Your task to perform on an android device: open chrome privacy settings Image 0: 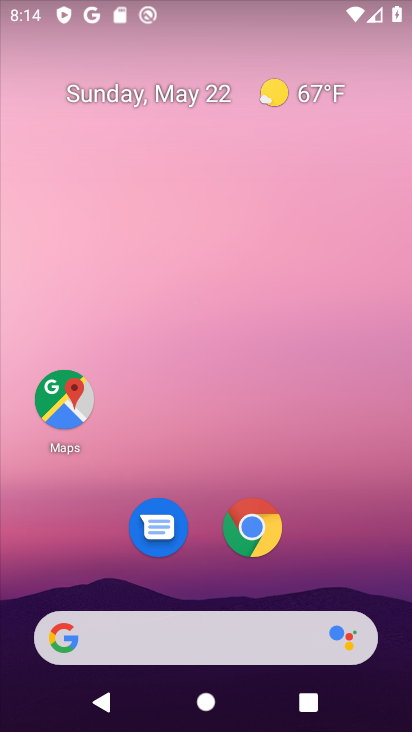
Step 0: click (248, 521)
Your task to perform on an android device: open chrome privacy settings Image 1: 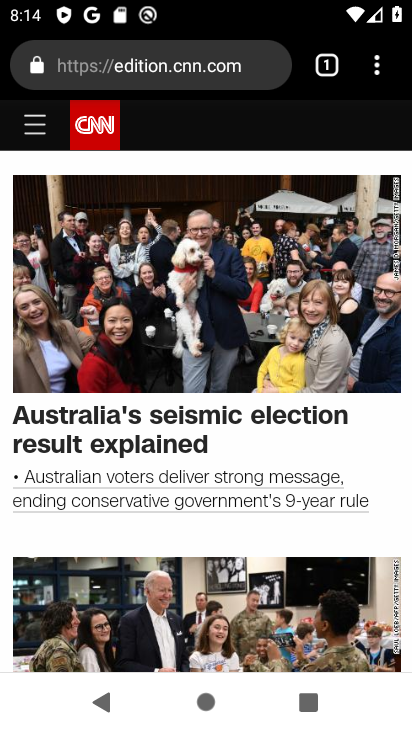
Step 1: click (376, 58)
Your task to perform on an android device: open chrome privacy settings Image 2: 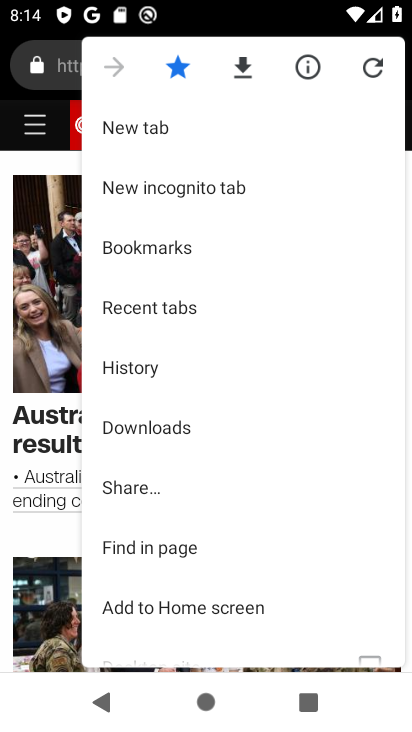
Step 2: drag from (295, 607) to (300, 50)
Your task to perform on an android device: open chrome privacy settings Image 3: 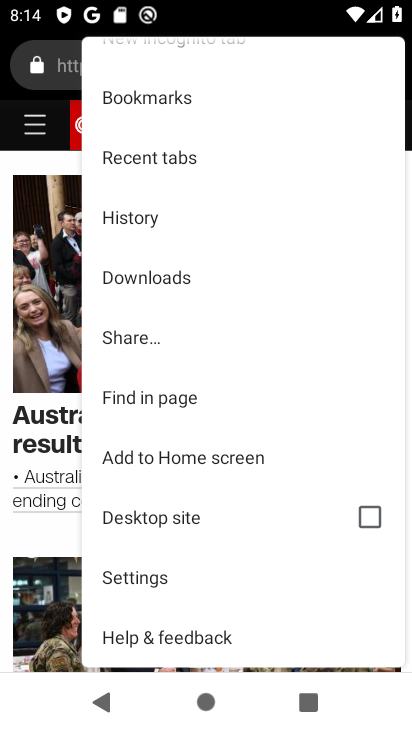
Step 3: click (178, 572)
Your task to perform on an android device: open chrome privacy settings Image 4: 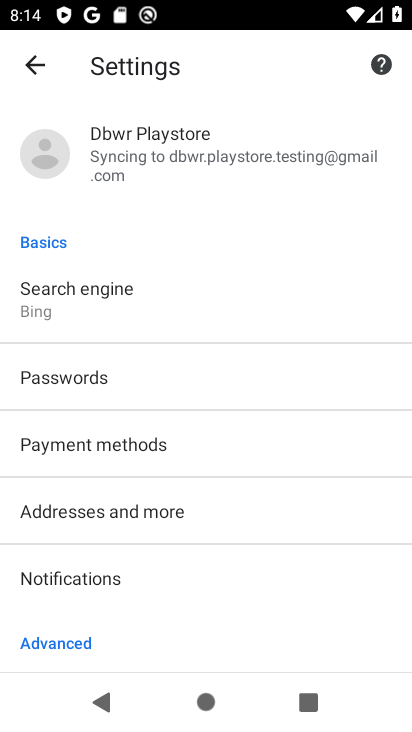
Step 4: drag from (206, 631) to (255, 97)
Your task to perform on an android device: open chrome privacy settings Image 5: 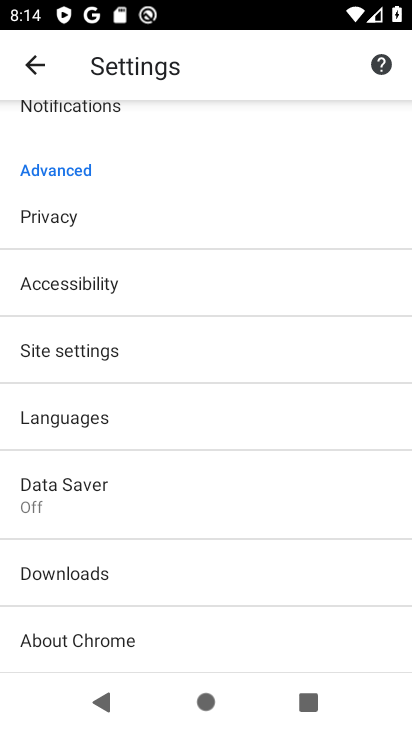
Step 5: click (95, 210)
Your task to perform on an android device: open chrome privacy settings Image 6: 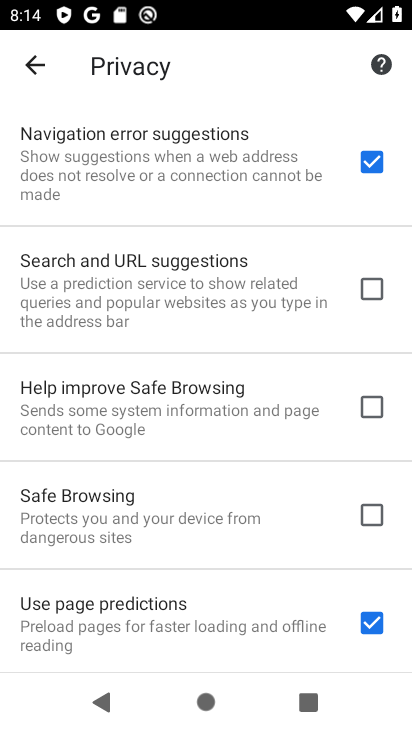
Step 6: task complete